Your task to perform on an android device: turn off smart reply in the gmail app Image 0: 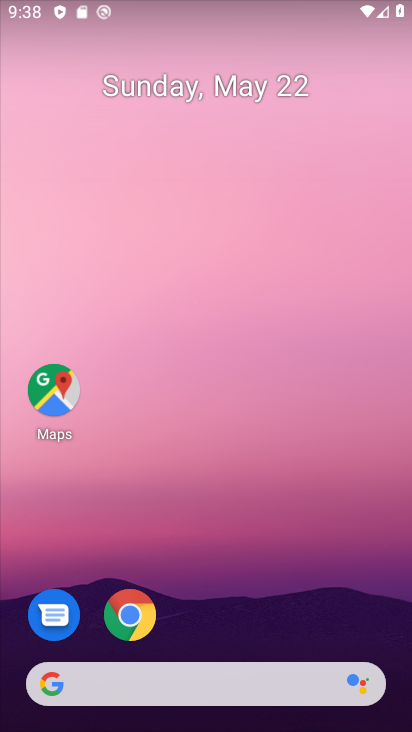
Step 0: click (293, 152)
Your task to perform on an android device: turn off smart reply in the gmail app Image 1: 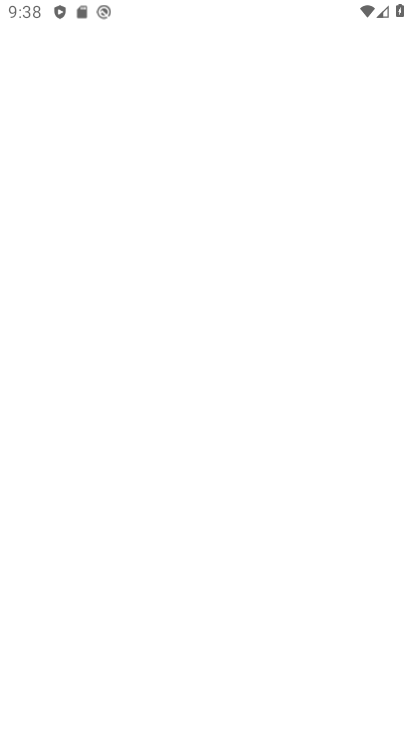
Step 1: drag from (305, 561) to (348, 215)
Your task to perform on an android device: turn off smart reply in the gmail app Image 2: 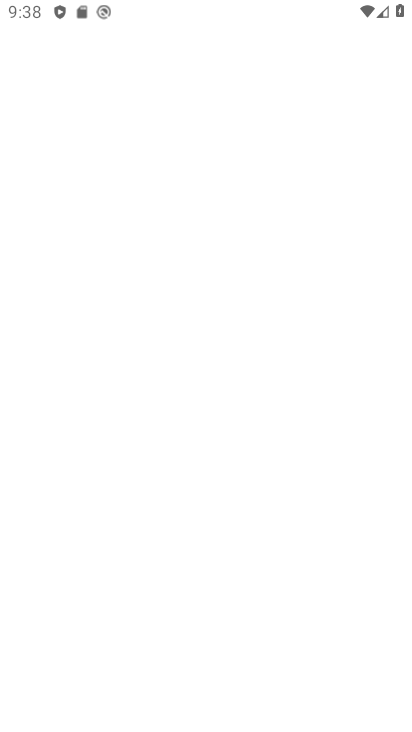
Step 2: press home button
Your task to perform on an android device: turn off smart reply in the gmail app Image 3: 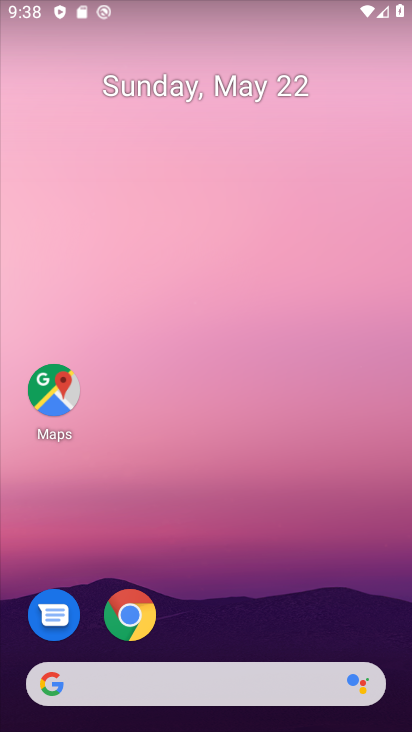
Step 3: drag from (227, 545) to (277, 100)
Your task to perform on an android device: turn off smart reply in the gmail app Image 4: 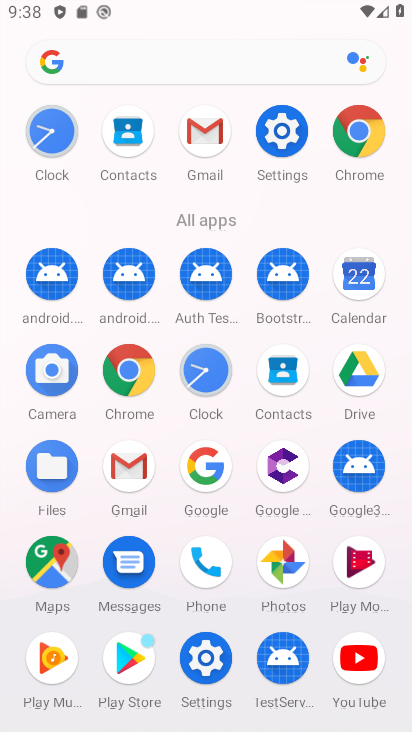
Step 4: click (135, 454)
Your task to perform on an android device: turn off smart reply in the gmail app Image 5: 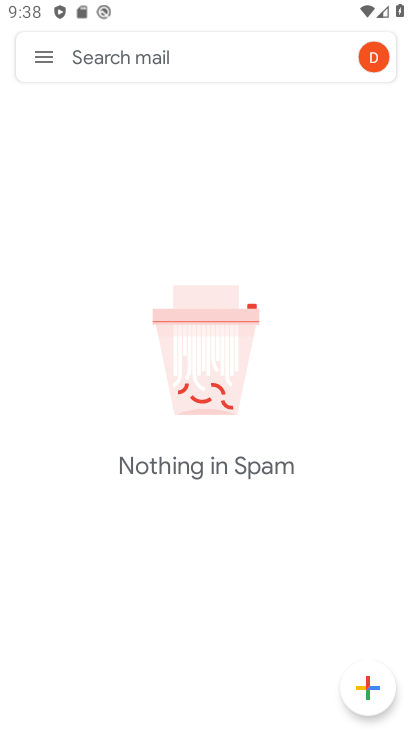
Step 5: click (45, 56)
Your task to perform on an android device: turn off smart reply in the gmail app Image 6: 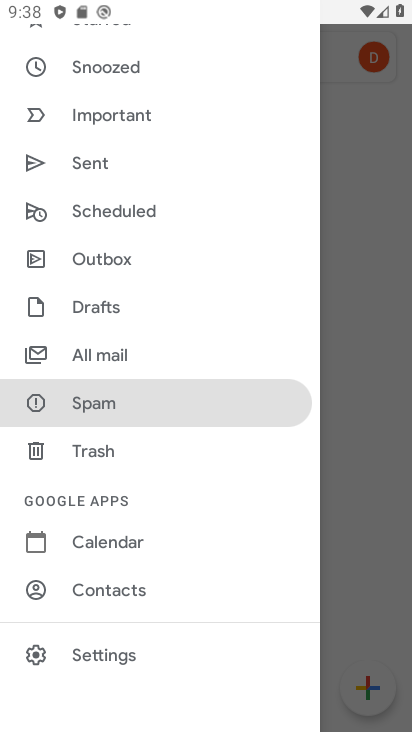
Step 6: click (108, 649)
Your task to perform on an android device: turn off smart reply in the gmail app Image 7: 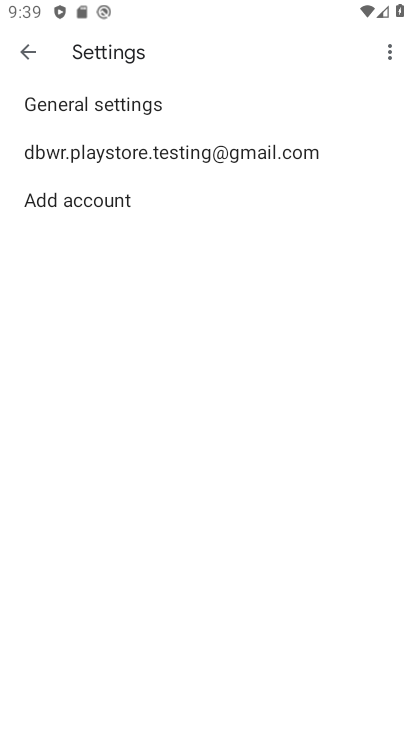
Step 7: click (227, 156)
Your task to perform on an android device: turn off smart reply in the gmail app Image 8: 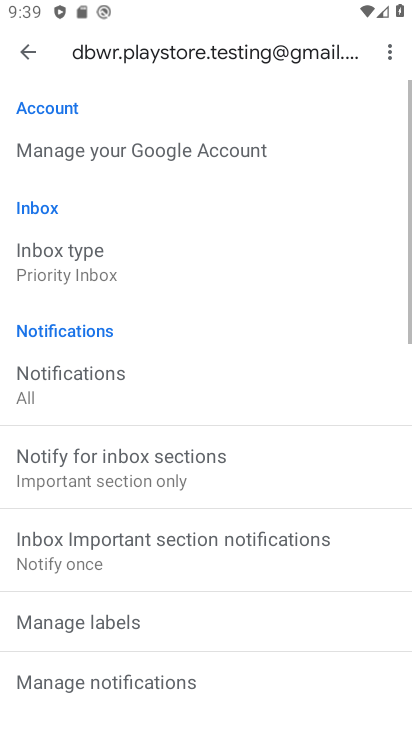
Step 8: drag from (210, 591) to (337, 67)
Your task to perform on an android device: turn off smart reply in the gmail app Image 9: 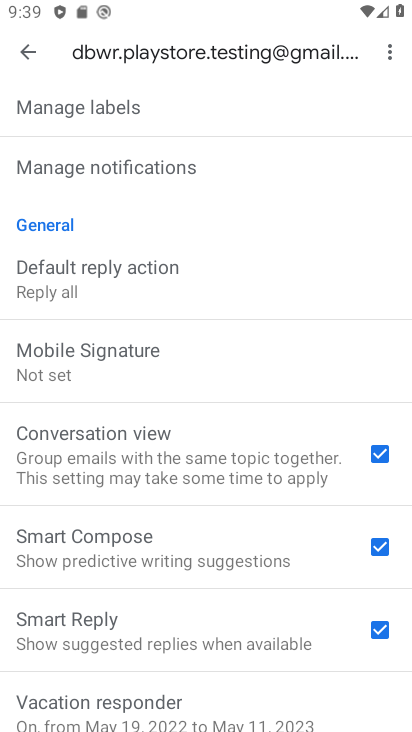
Step 9: click (381, 643)
Your task to perform on an android device: turn off smart reply in the gmail app Image 10: 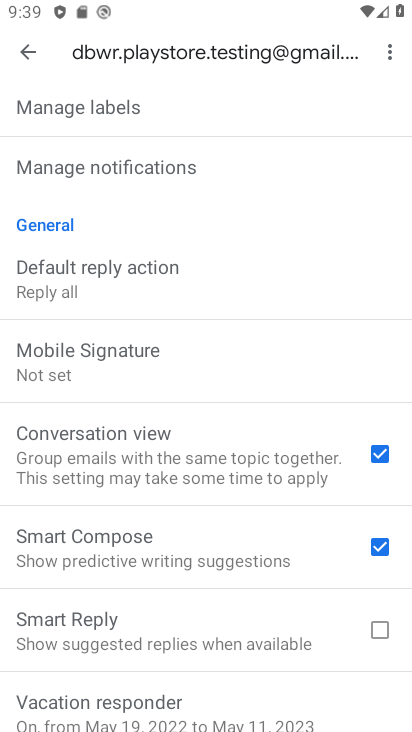
Step 10: task complete